Your task to perform on an android device: Search for seafood restaurants on Google Maps Image 0: 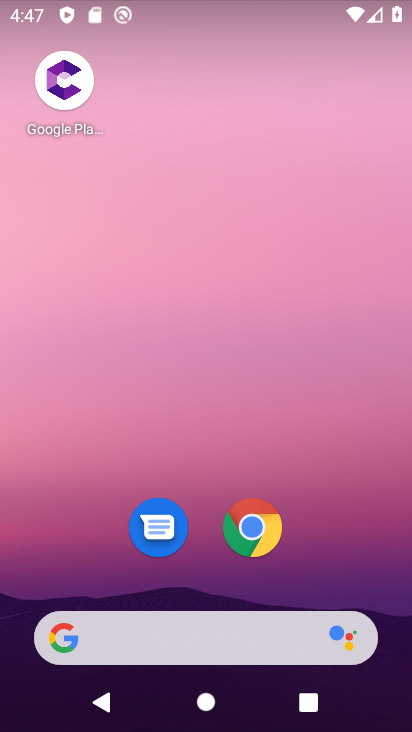
Step 0: drag from (210, 515) to (239, 228)
Your task to perform on an android device: Search for seafood restaurants on Google Maps Image 1: 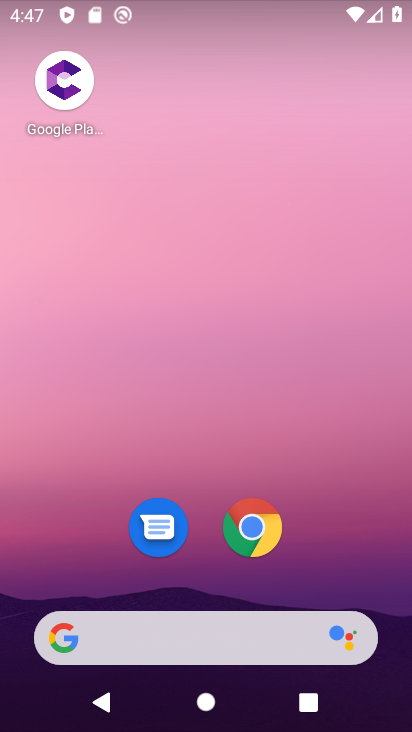
Step 1: drag from (201, 555) to (243, 212)
Your task to perform on an android device: Search for seafood restaurants on Google Maps Image 2: 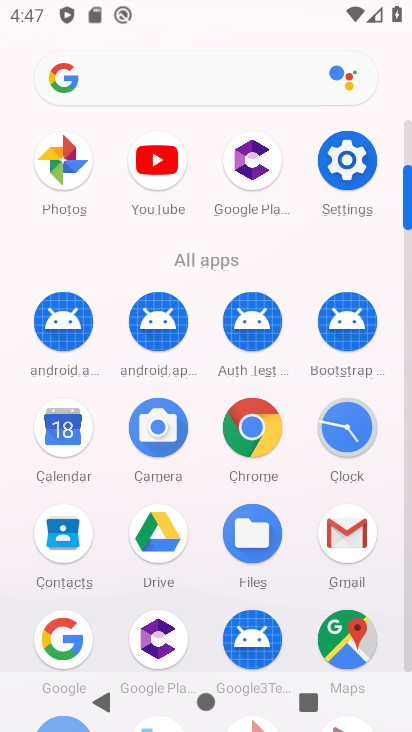
Step 2: click (351, 635)
Your task to perform on an android device: Search for seafood restaurants on Google Maps Image 3: 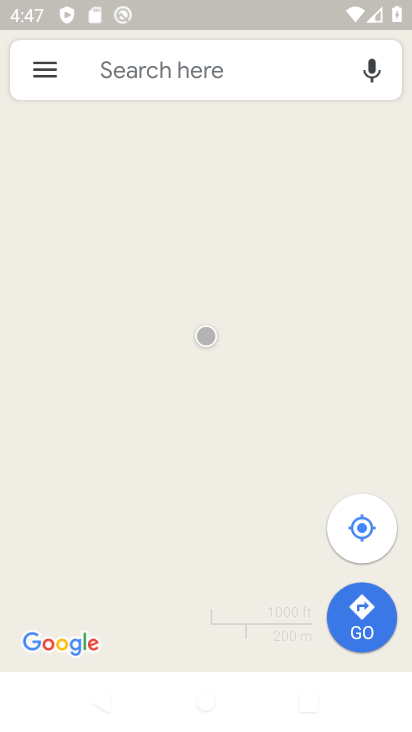
Step 3: click (194, 64)
Your task to perform on an android device: Search for seafood restaurants on Google Maps Image 4: 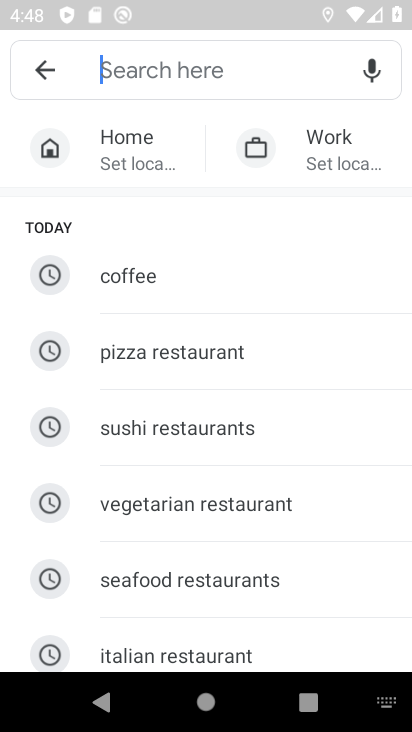
Step 4: click (174, 572)
Your task to perform on an android device: Search for seafood restaurants on Google Maps Image 5: 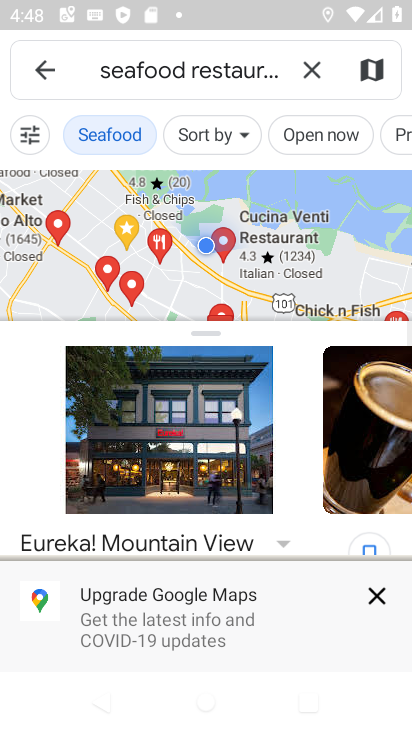
Step 5: click (368, 601)
Your task to perform on an android device: Search for seafood restaurants on Google Maps Image 6: 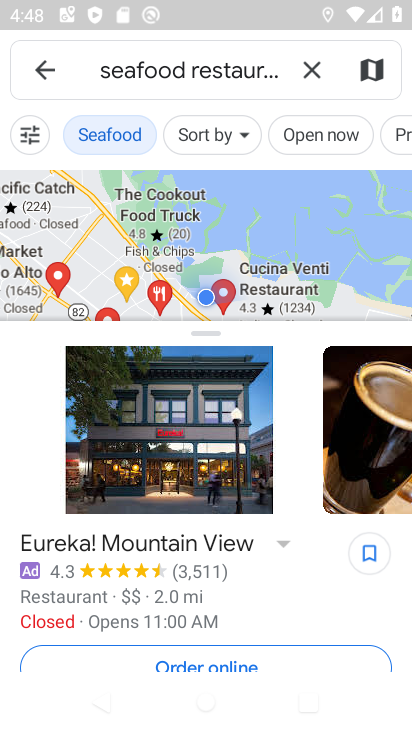
Step 6: task complete